Your task to perform on an android device: read, delete, or share a saved page in the chrome app Image 0: 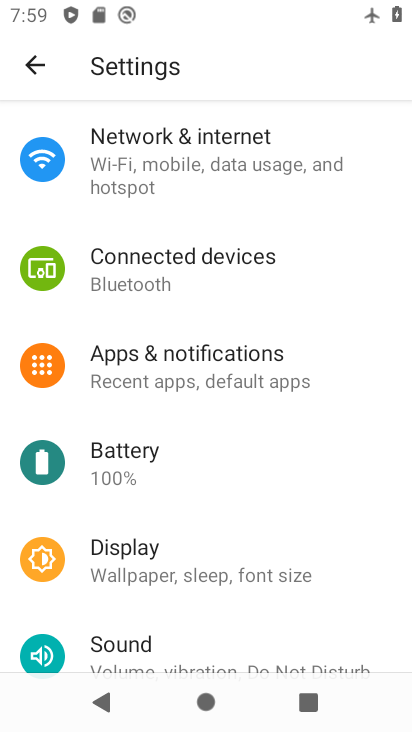
Step 0: press home button
Your task to perform on an android device: read, delete, or share a saved page in the chrome app Image 1: 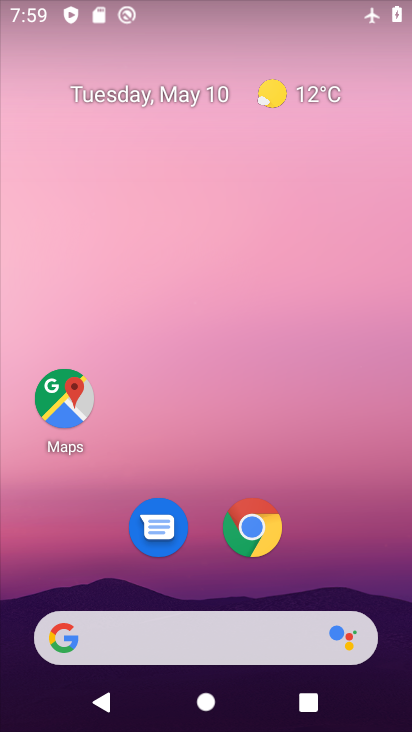
Step 1: click (253, 528)
Your task to perform on an android device: read, delete, or share a saved page in the chrome app Image 2: 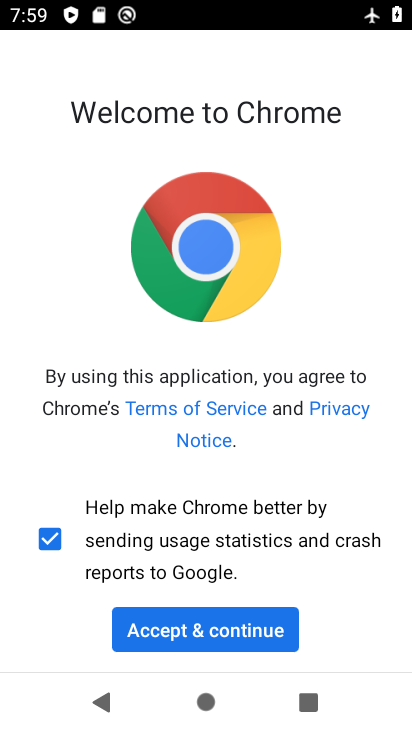
Step 2: click (200, 627)
Your task to perform on an android device: read, delete, or share a saved page in the chrome app Image 3: 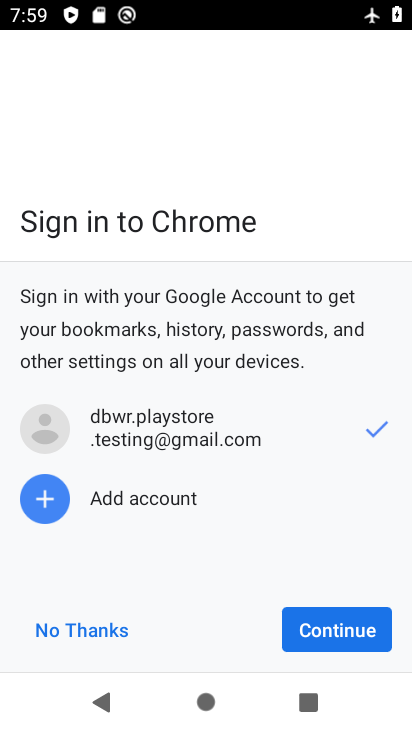
Step 3: click (330, 616)
Your task to perform on an android device: read, delete, or share a saved page in the chrome app Image 4: 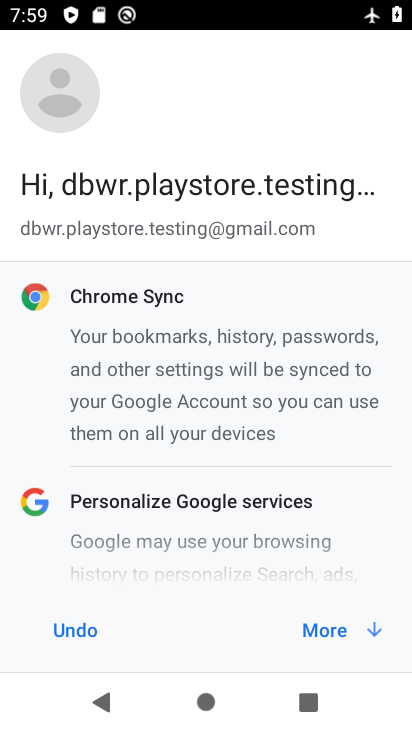
Step 4: click (326, 628)
Your task to perform on an android device: read, delete, or share a saved page in the chrome app Image 5: 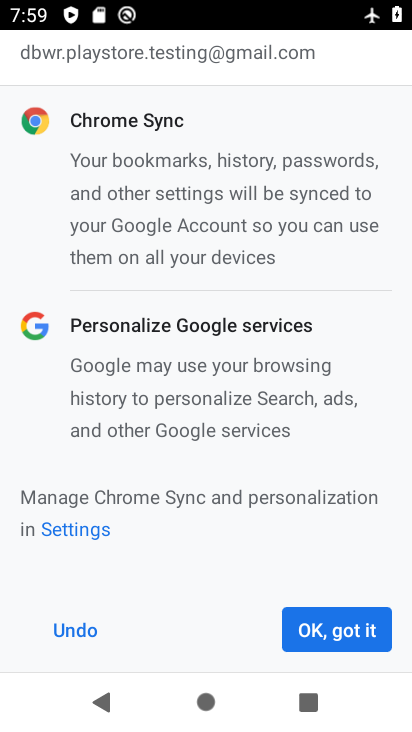
Step 5: click (326, 628)
Your task to perform on an android device: read, delete, or share a saved page in the chrome app Image 6: 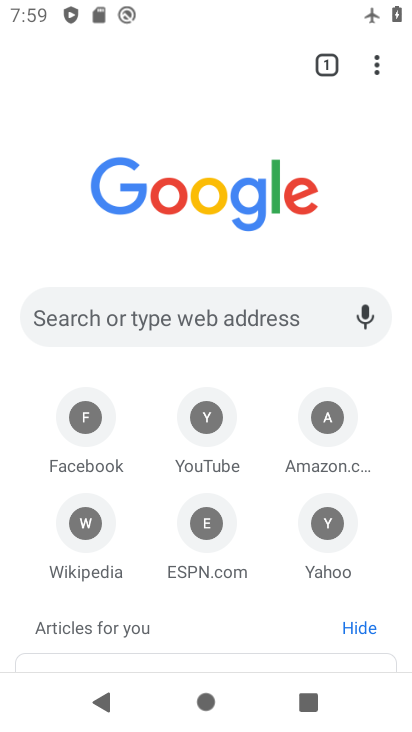
Step 6: task complete